Your task to perform on an android device: Show me recent news Image 0: 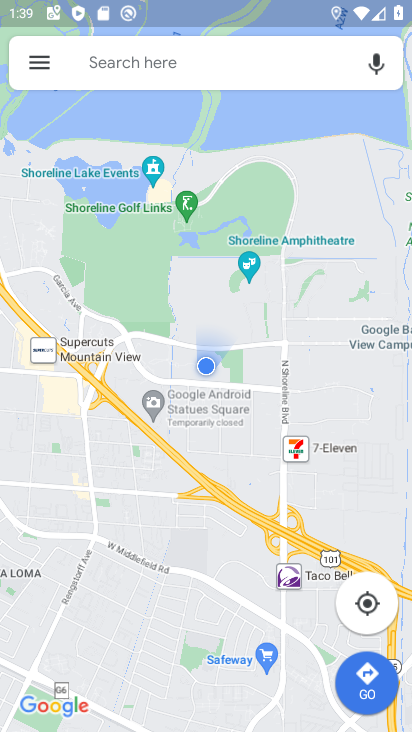
Step 0: press home button
Your task to perform on an android device: Show me recent news Image 1: 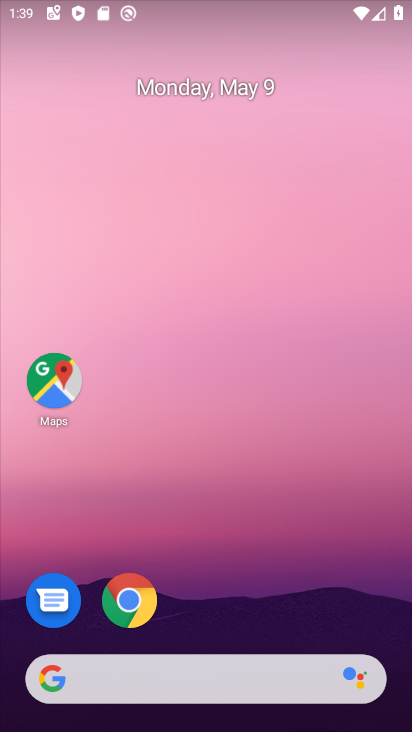
Step 1: click (258, 685)
Your task to perform on an android device: Show me recent news Image 2: 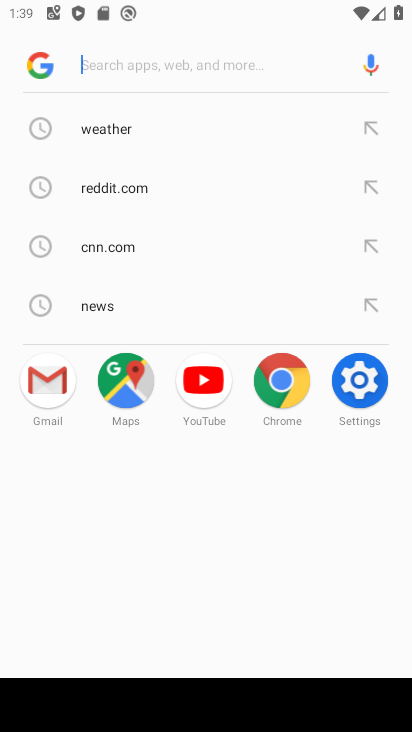
Step 2: click (41, 67)
Your task to perform on an android device: Show me recent news Image 3: 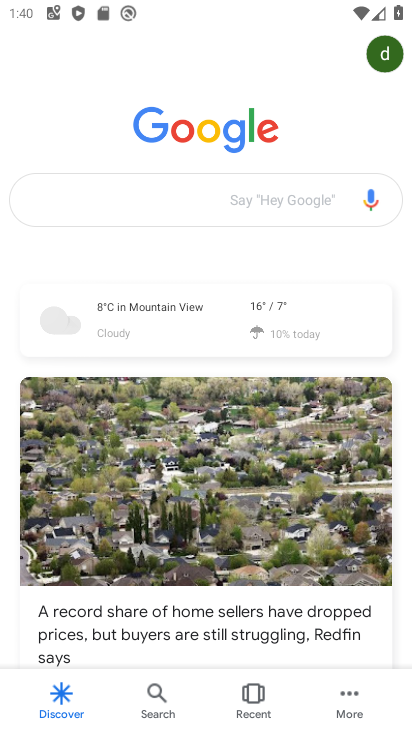
Step 3: task complete